Your task to perform on an android device: check the backup settings in the google photos Image 0: 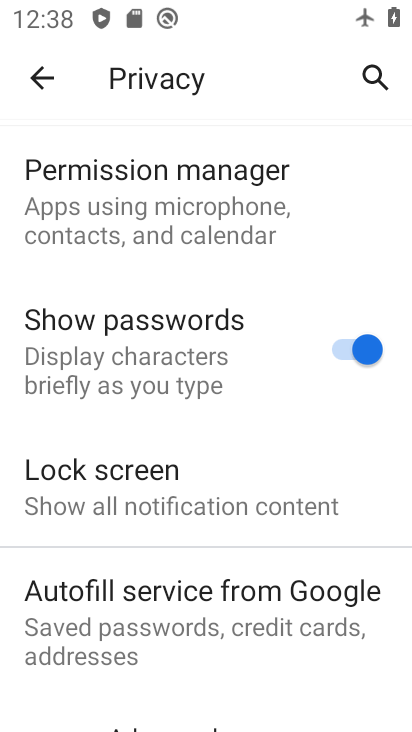
Step 0: press home button
Your task to perform on an android device: check the backup settings in the google photos Image 1: 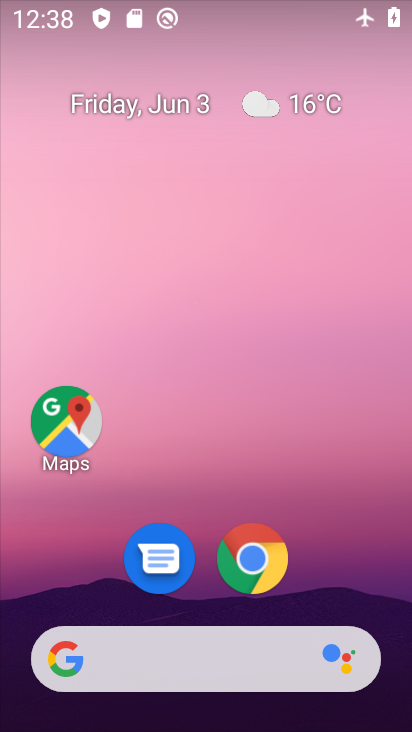
Step 1: drag from (370, 604) to (373, 272)
Your task to perform on an android device: check the backup settings in the google photos Image 2: 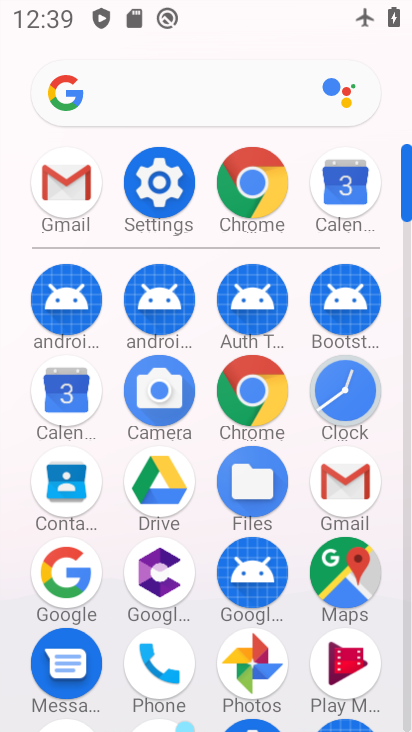
Step 2: click (267, 679)
Your task to perform on an android device: check the backup settings in the google photos Image 3: 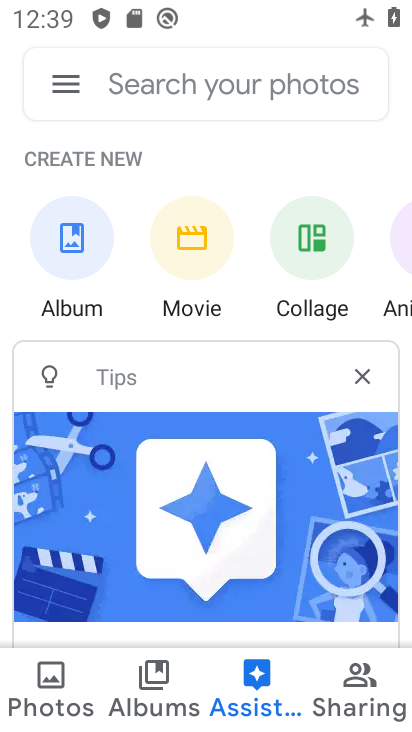
Step 3: click (69, 85)
Your task to perform on an android device: check the backup settings in the google photos Image 4: 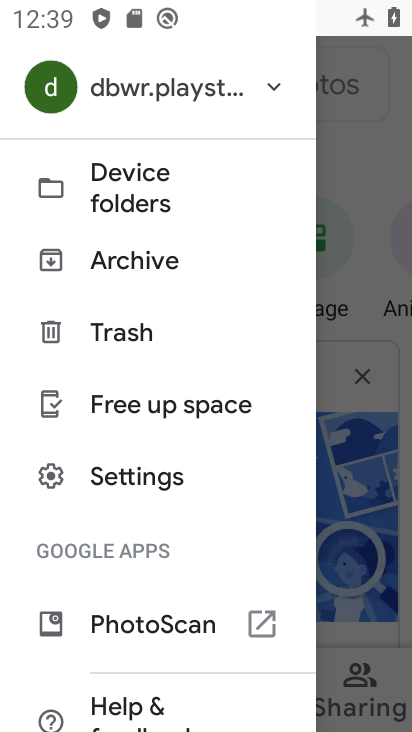
Step 4: click (146, 488)
Your task to perform on an android device: check the backup settings in the google photos Image 5: 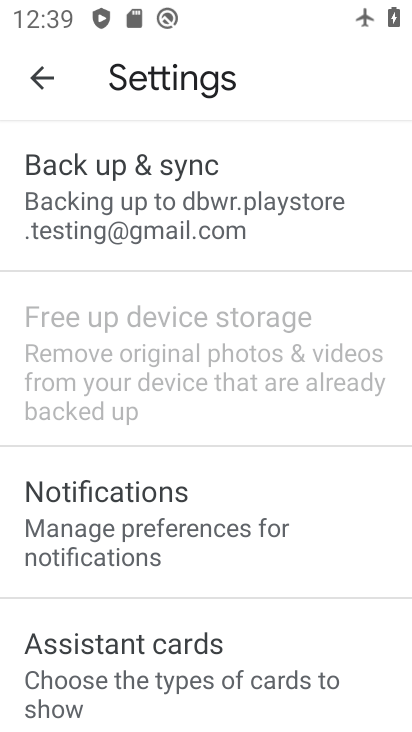
Step 5: click (198, 256)
Your task to perform on an android device: check the backup settings in the google photos Image 6: 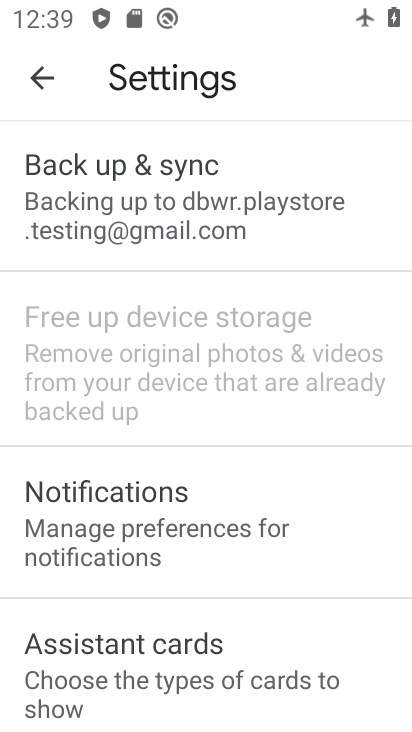
Step 6: click (198, 256)
Your task to perform on an android device: check the backup settings in the google photos Image 7: 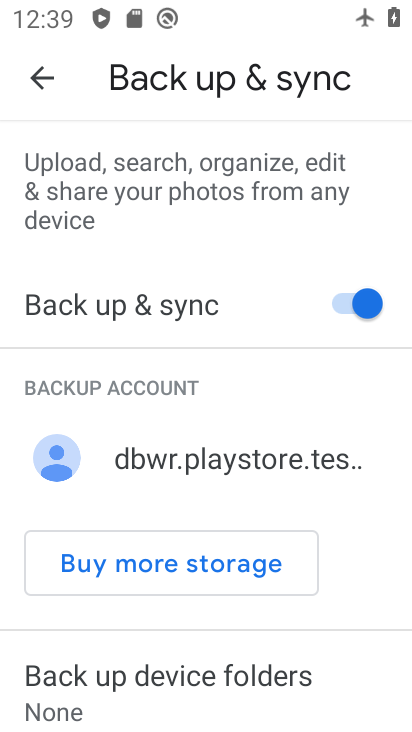
Step 7: task complete